Your task to perform on an android device: toggle improve location accuracy Image 0: 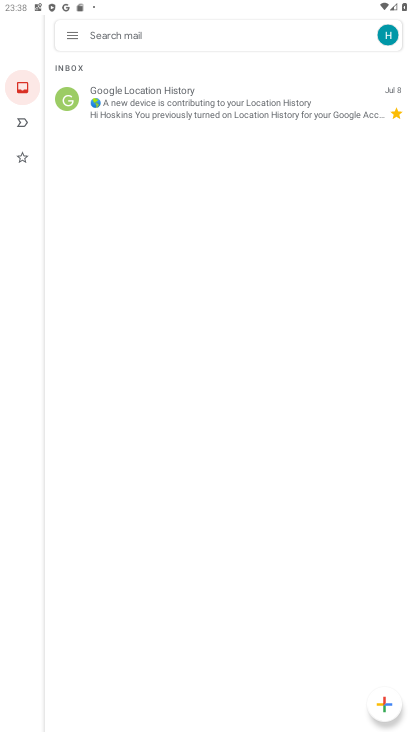
Step 0: press home button
Your task to perform on an android device: toggle improve location accuracy Image 1: 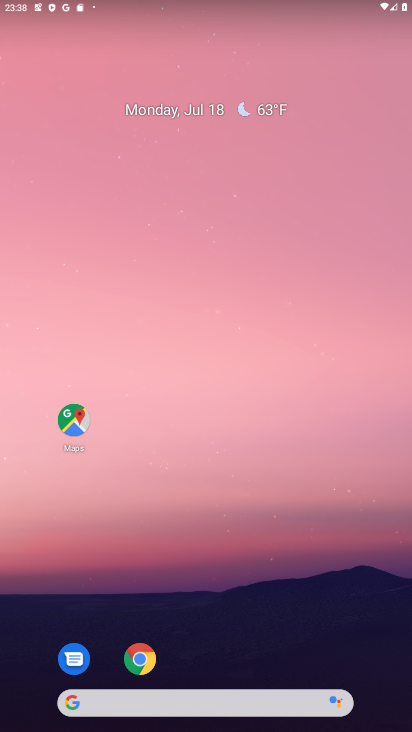
Step 1: press home button
Your task to perform on an android device: toggle improve location accuracy Image 2: 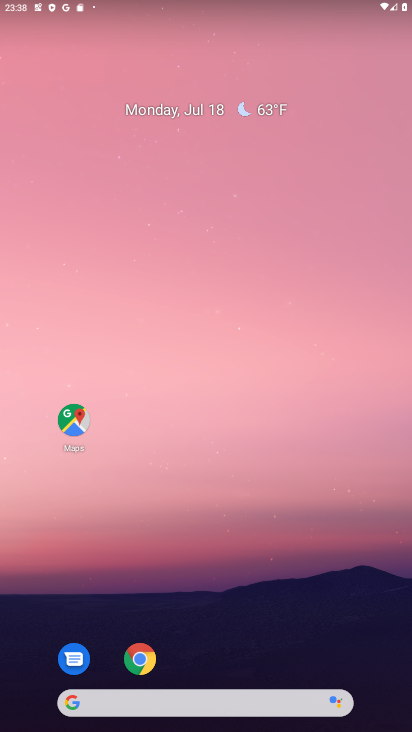
Step 2: drag from (230, 667) to (216, 264)
Your task to perform on an android device: toggle improve location accuracy Image 3: 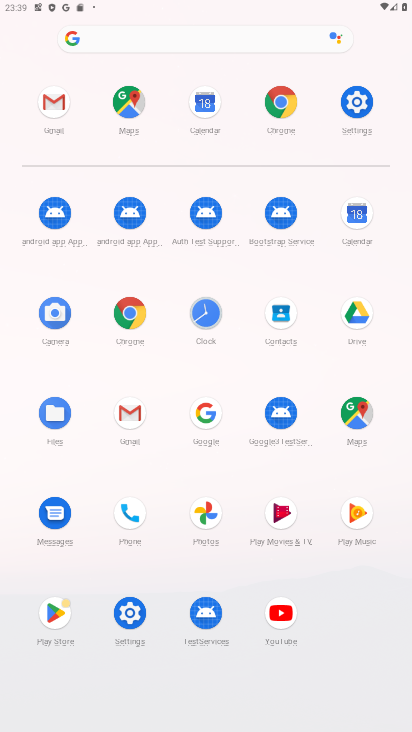
Step 3: click (137, 611)
Your task to perform on an android device: toggle improve location accuracy Image 4: 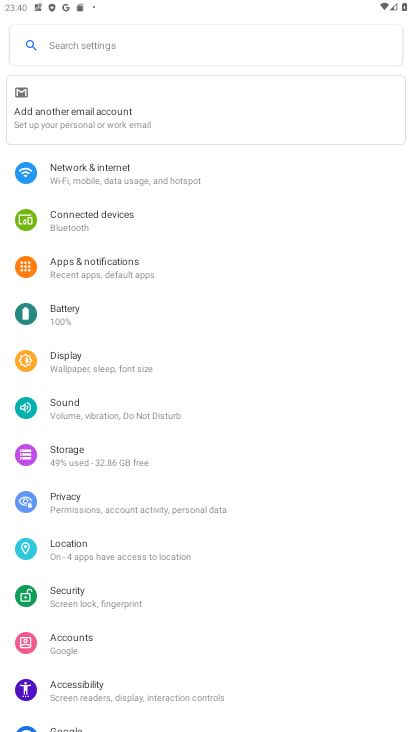
Step 4: click (150, 557)
Your task to perform on an android device: toggle improve location accuracy Image 5: 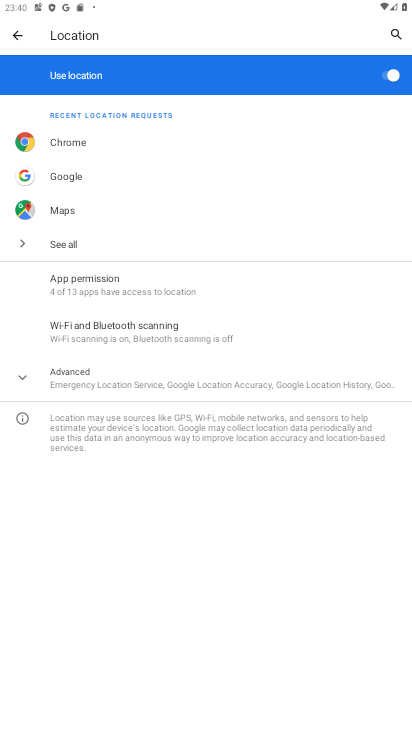
Step 5: click (178, 374)
Your task to perform on an android device: toggle improve location accuracy Image 6: 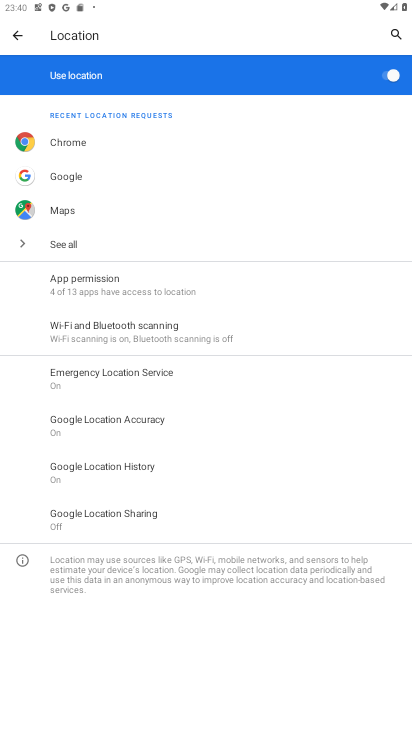
Step 6: click (84, 430)
Your task to perform on an android device: toggle improve location accuracy Image 7: 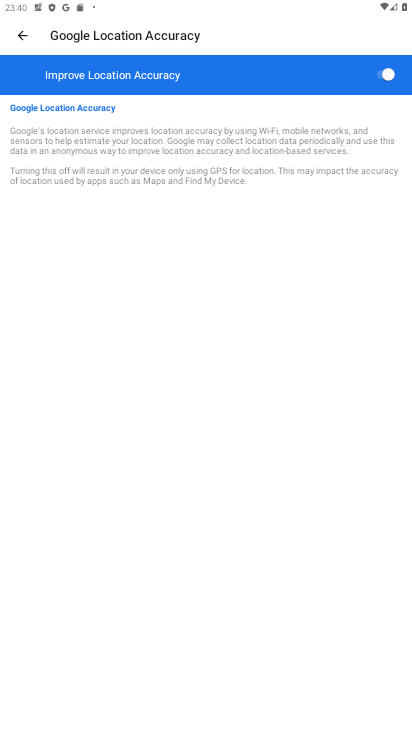
Step 7: click (367, 83)
Your task to perform on an android device: toggle improve location accuracy Image 8: 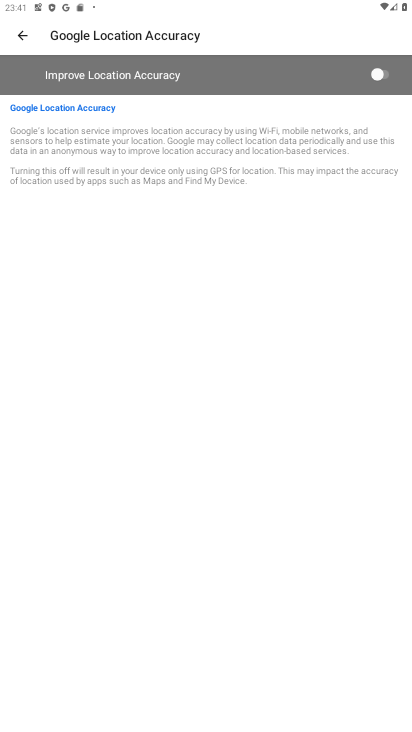
Step 8: task complete